Your task to perform on an android device: install app "Expedia: Hotels, Flights & Car" Image 0: 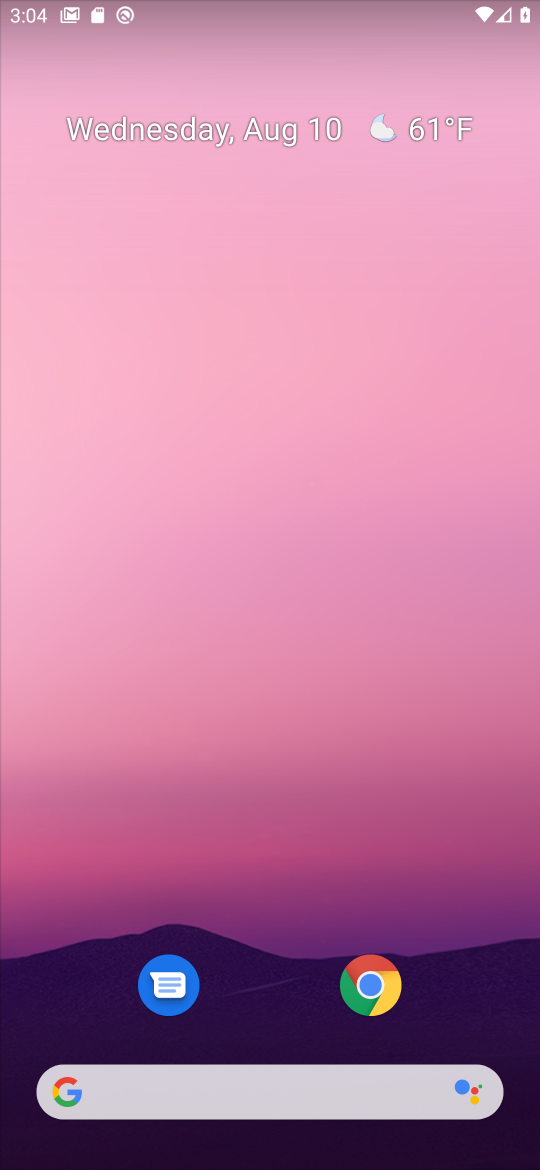
Step 0: drag from (287, 949) to (276, 297)
Your task to perform on an android device: install app "Expedia: Hotels, Flights & Car" Image 1: 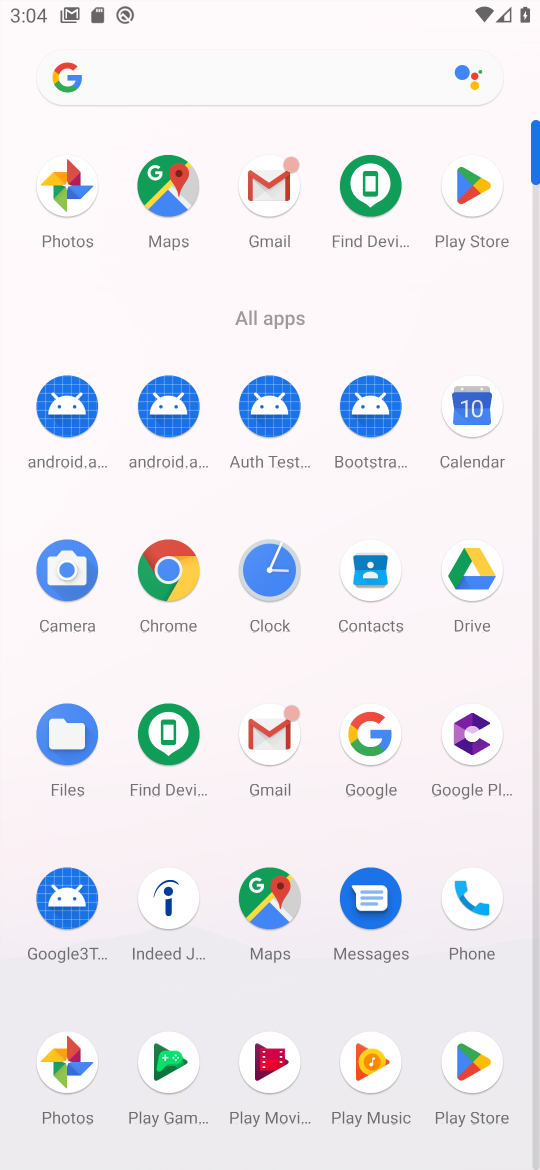
Step 1: click (493, 179)
Your task to perform on an android device: install app "Expedia: Hotels, Flights & Car" Image 2: 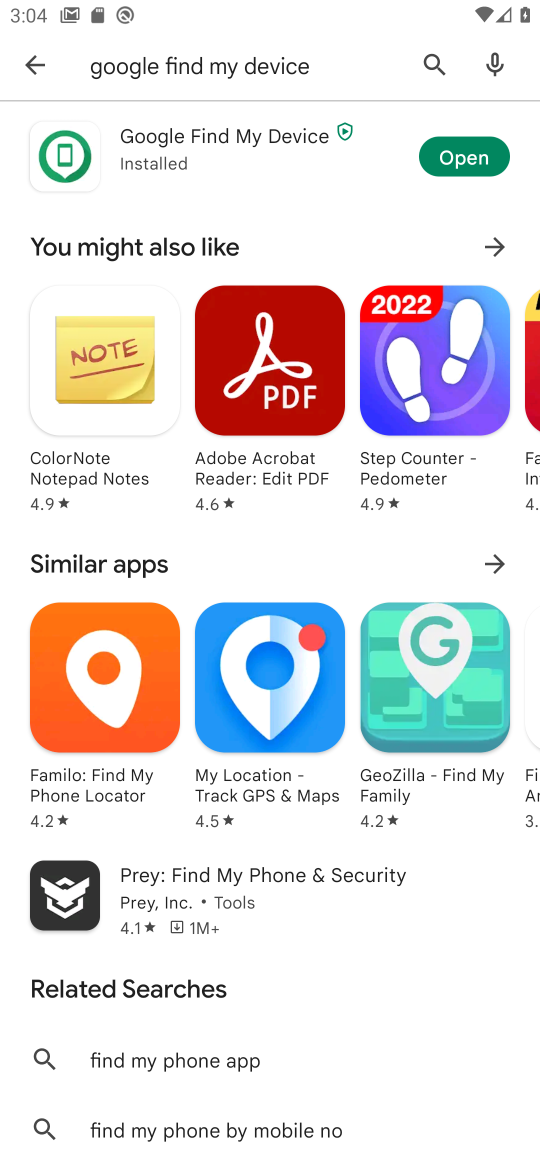
Step 2: click (27, 65)
Your task to perform on an android device: install app "Expedia: Hotels, Flights & Car" Image 3: 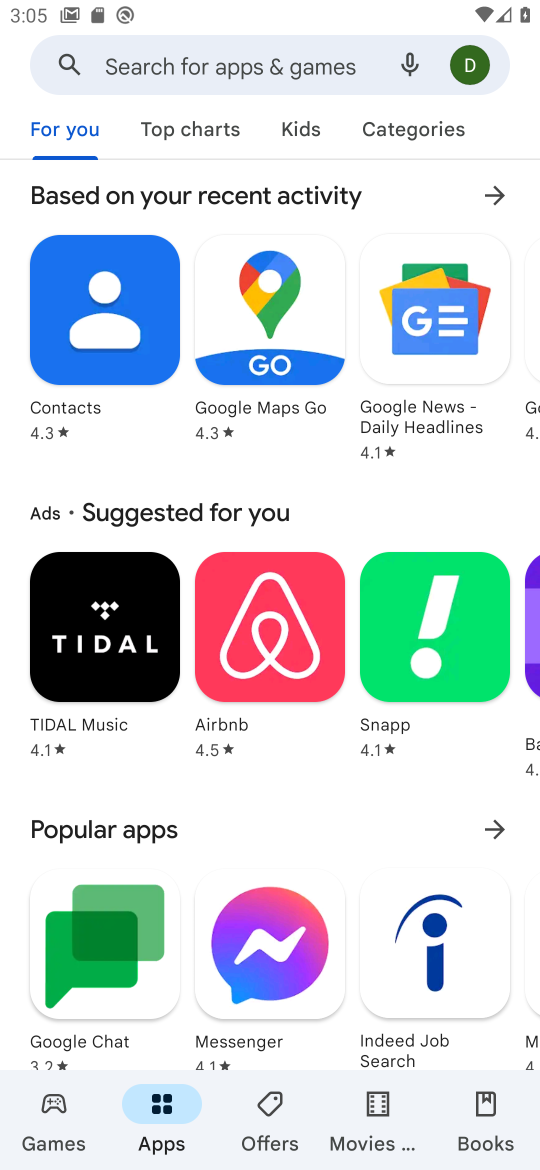
Step 3: click (223, 76)
Your task to perform on an android device: install app "Expedia: Hotels, Flights & Car" Image 4: 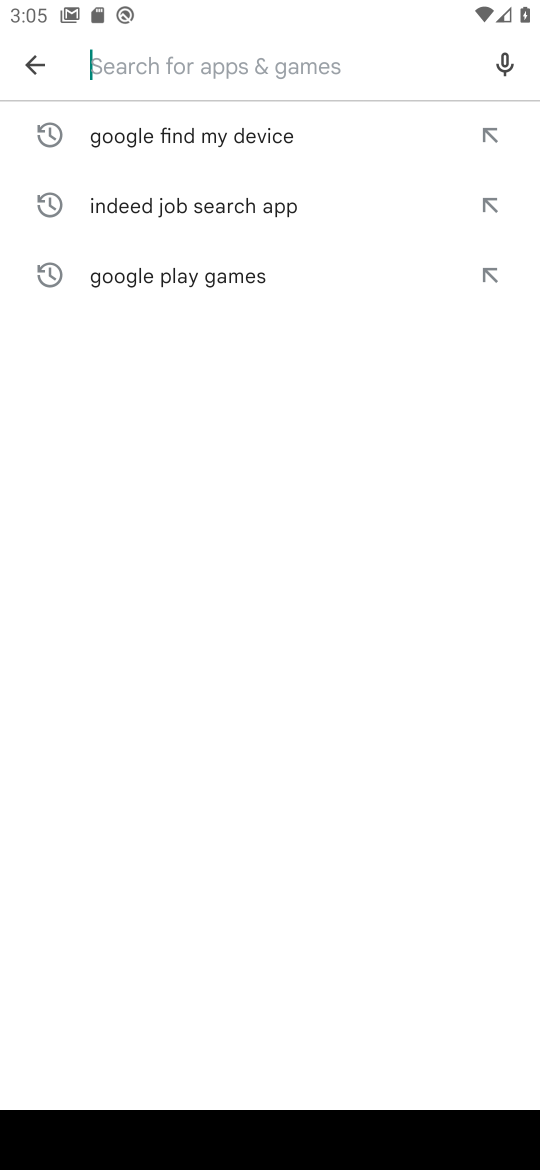
Step 4: type "Expedia: Hotels, Flights & Car"
Your task to perform on an android device: install app "Expedia: Hotels, Flights & Car" Image 5: 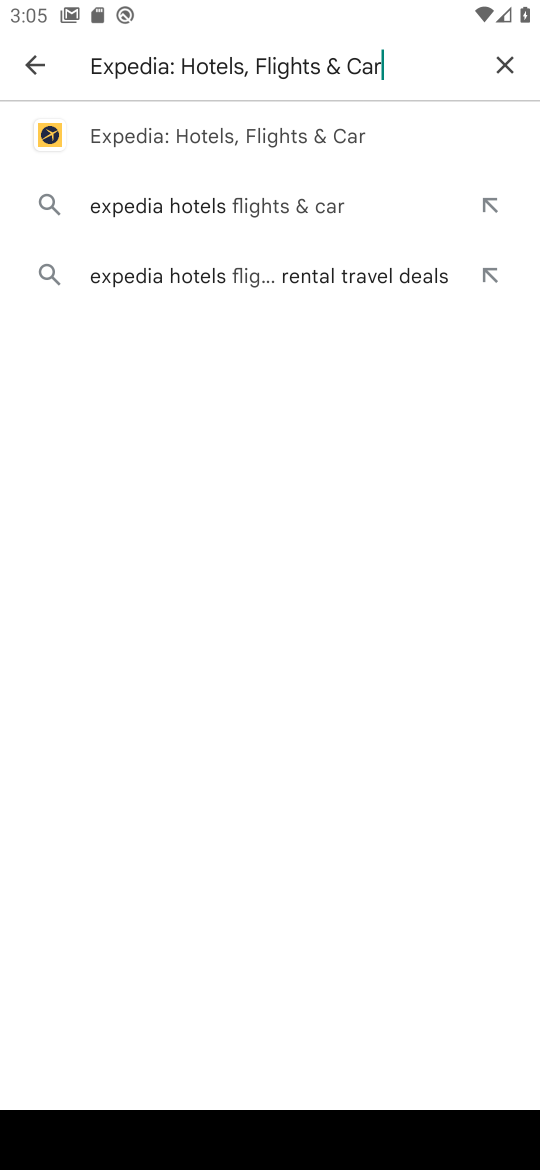
Step 5: click (269, 136)
Your task to perform on an android device: install app "Expedia: Hotels, Flights & Car" Image 6: 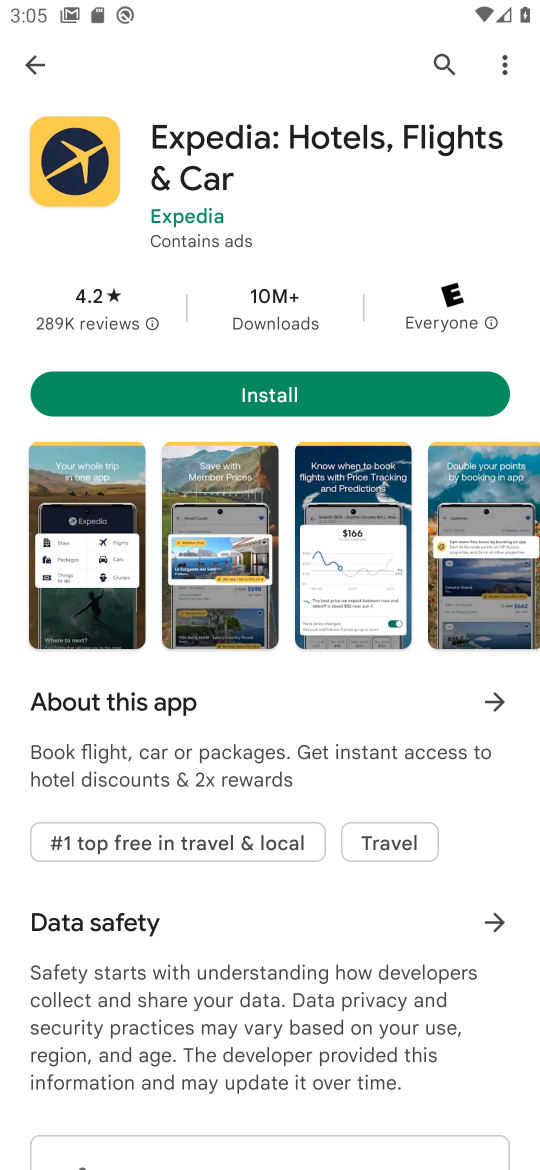
Step 6: click (239, 401)
Your task to perform on an android device: install app "Expedia: Hotels, Flights & Car" Image 7: 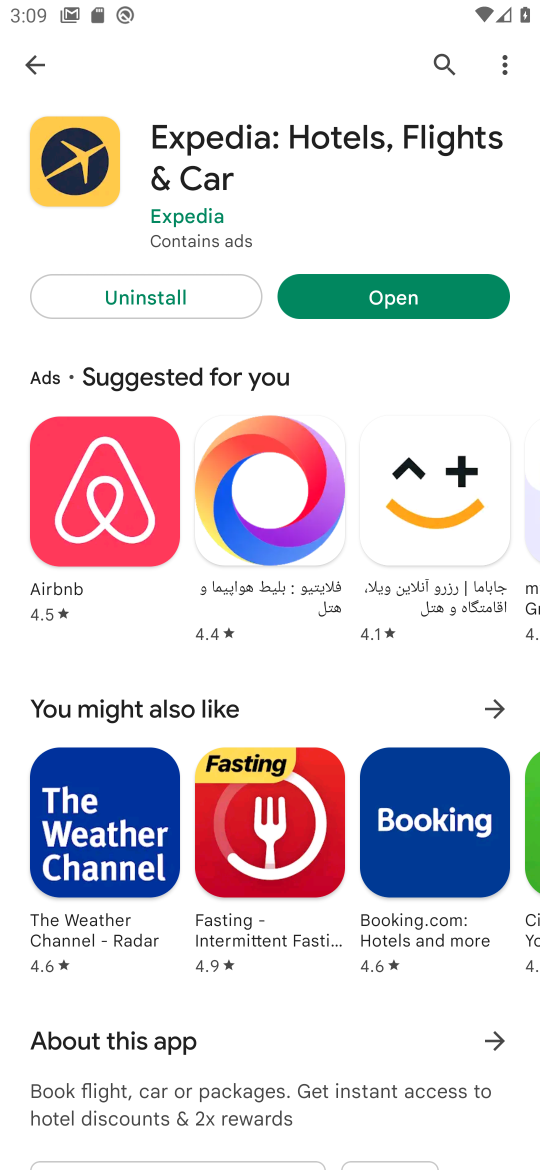
Step 7: task complete